Your task to perform on an android device: Search for pizza restaurants on Maps Image 0: 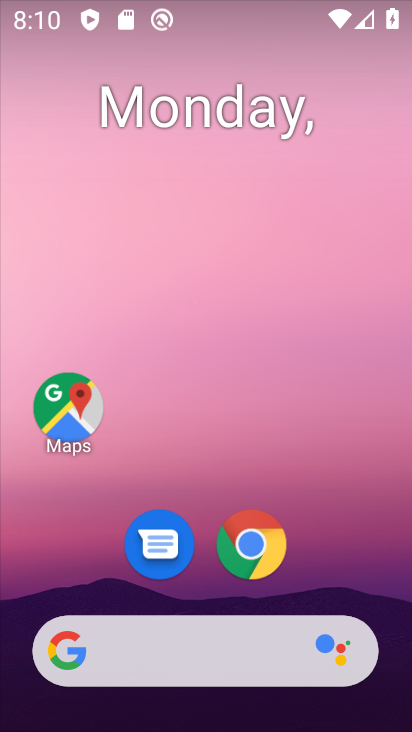
Step 0: click (55, 392)
Your task to perform on an android device: Search for pizza restaurants on Maps Image 1: 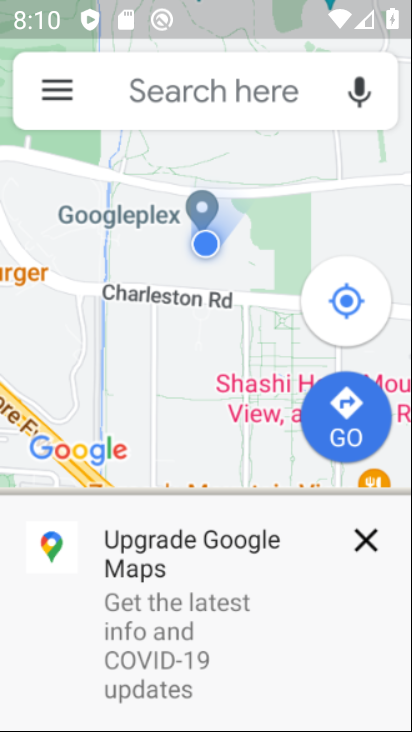
Step 1: click (198, 92)
Your task to perform on an android device: Search for pizza restaurants on Maps Image 2: 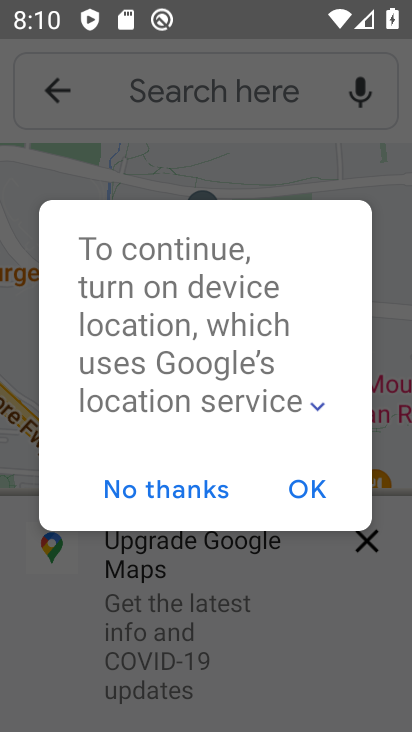
Step 2: click (320, 482)
Your task to perform on an android device: Search for pizza restaurants on Maps Image 3: 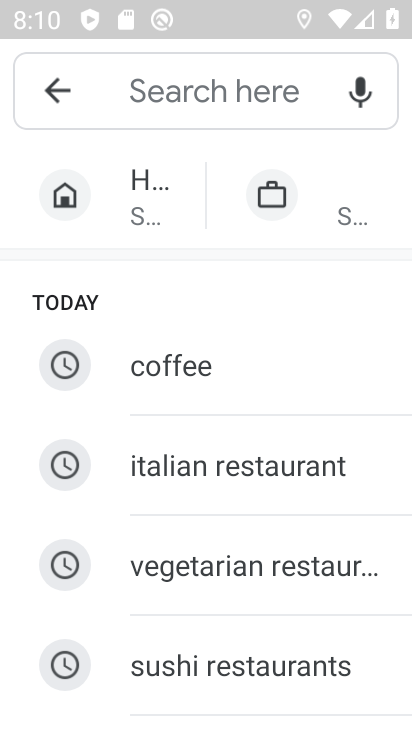
Step 3: drag from (266, 637) to (175, 241)
Your task to perform on an android device: Search for pizza restaurants on Maps Image 4: 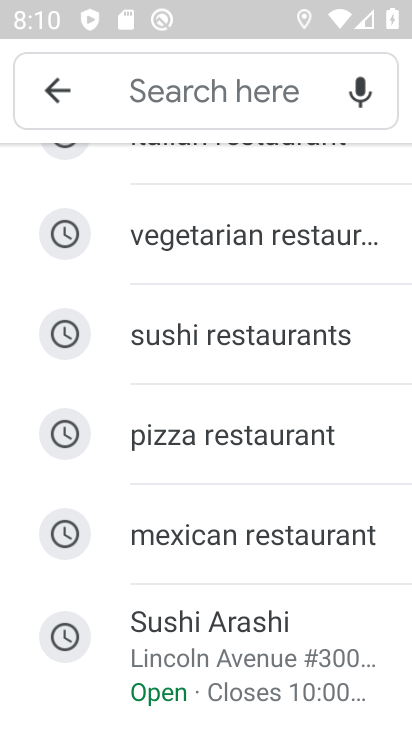
Step 4: click (180, 425)
Your task to perform on an android device: Search for pizza restaurants on Maps Image 5: 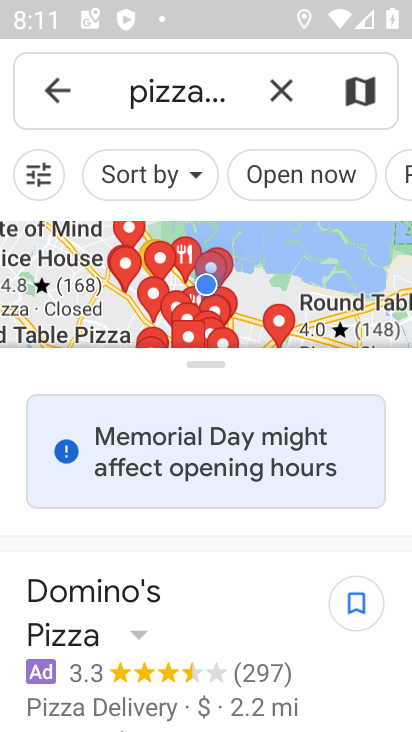
Step 5: task complete